Your task to perform on an android device: Open sound settings Image 0: 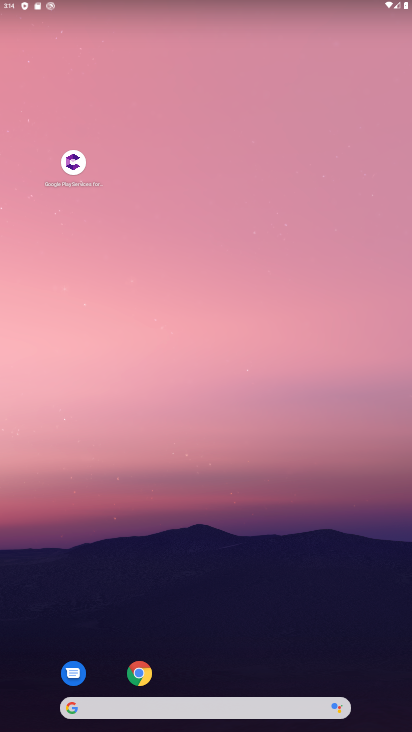
Step 0: drag from (276, 549) to (349, 7)
Your task to perform on an android device: Open sound settings Image 1: 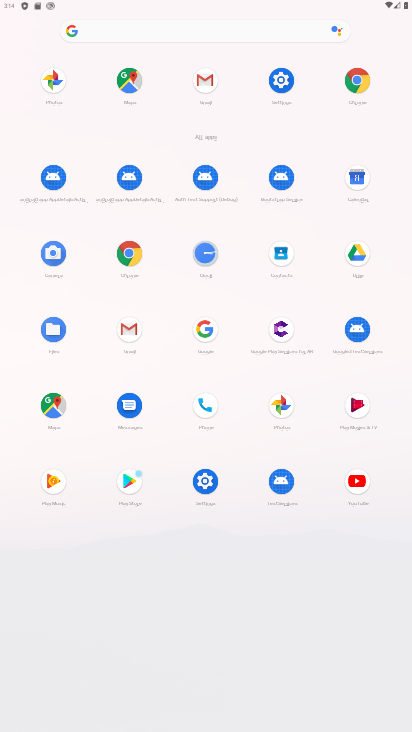
Step 1: click (282, 77)
Your task to perform on an android device: Open sound settings Image 2: 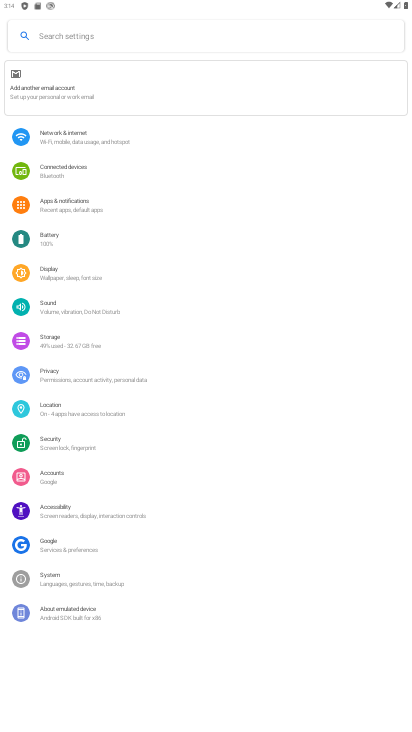
Step 2: click (52, 309)
Your task to perform on an android device: Open sound settings Image 3: 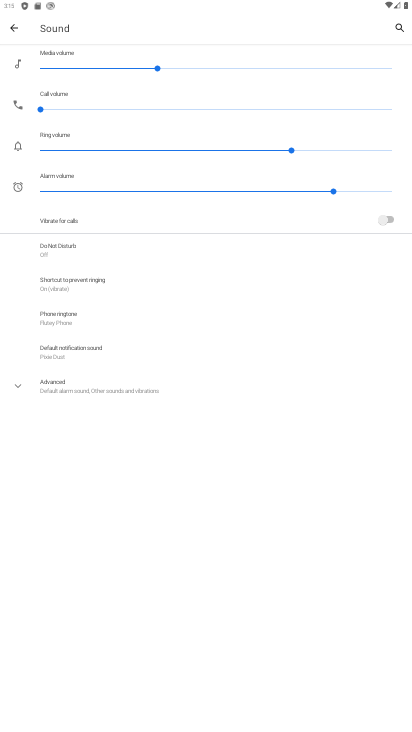
Step 3: task complete